Your task to perform on an android device: Go to accessibility settings Image 0: 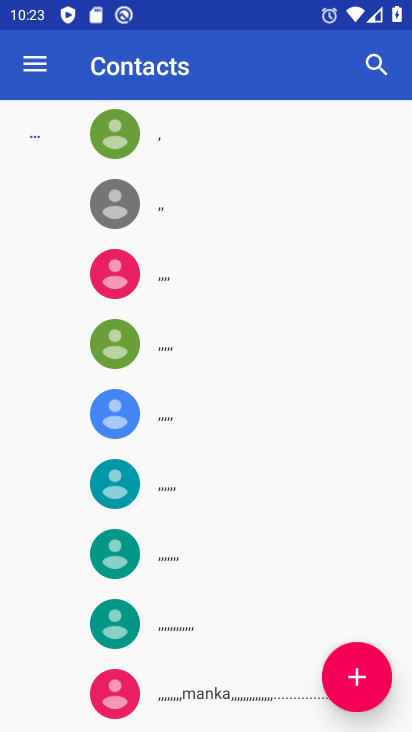
Step 0: press home button
Your task to perform on an android device: Go to accessibility settings Image 1: 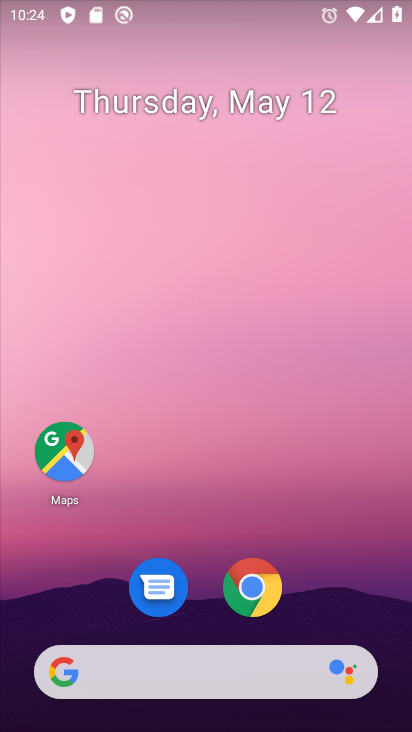
Step 1: drag from (373, 591) to (295, 127)
Your task to perform on an android device: Go to accessibility settings Image 2: 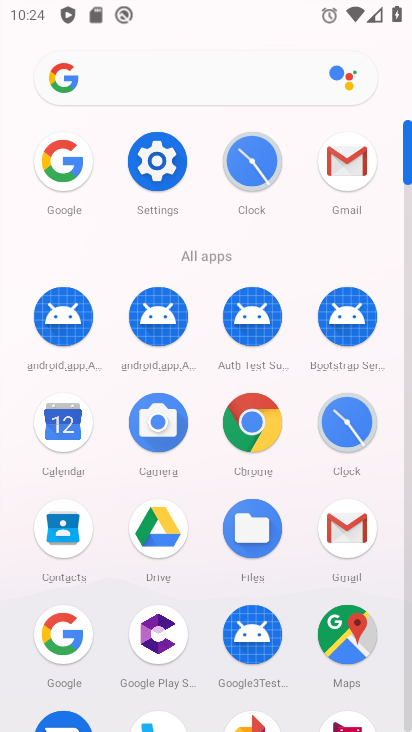
Step 2: click (146, 162)
Your task to perform on an android device: Go to accessibility settings Image 3: 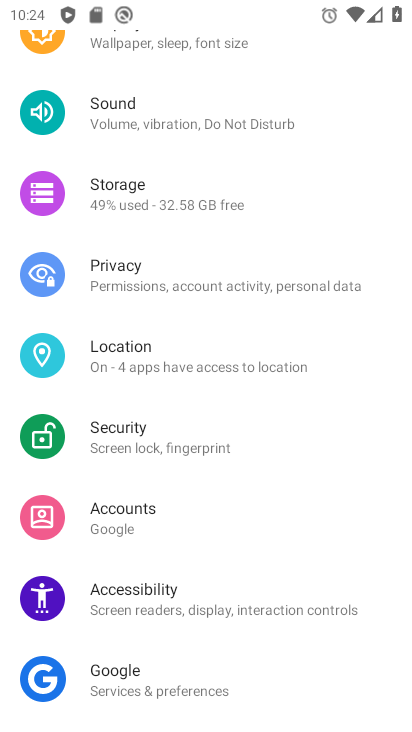
Step 3: click (156, 591)
Your task to perform on an android device: Go to accessibility settings Image 4: 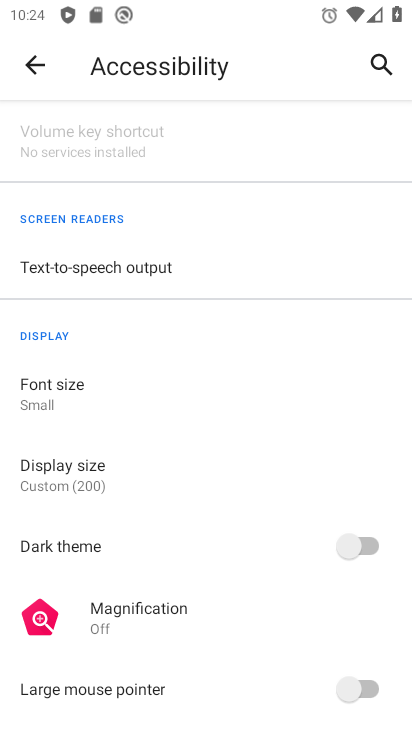
Step 4: task complete